Your task to perform on an android device: Open Youtube and go to "Your channel" Image 0: 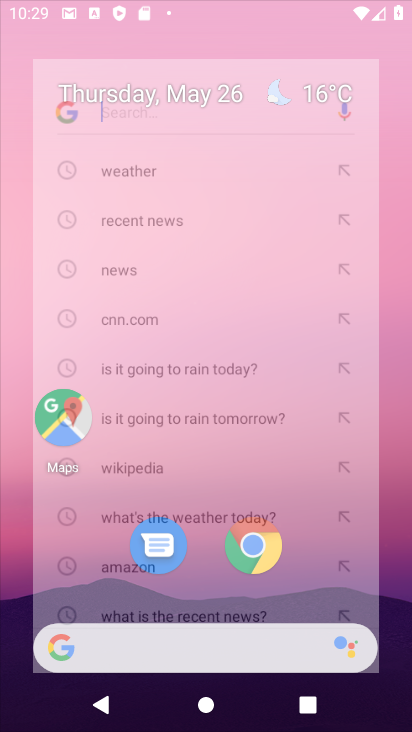
Step 0: press home button
Your task to perform on an android device: Open Youtube and go to "Your channel" Image 1: 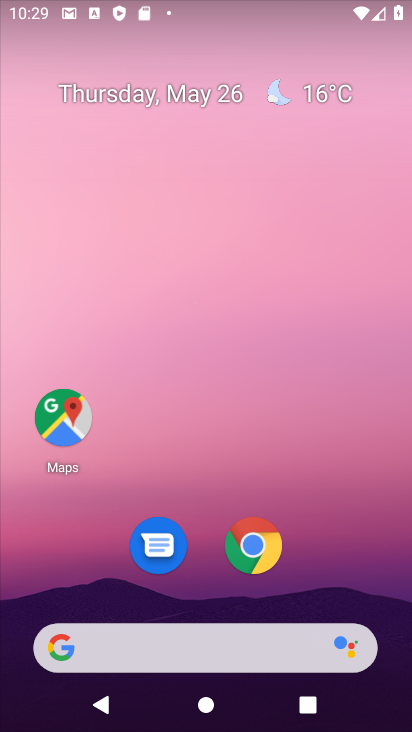
Step 1: drag from (283, 604) to (244, 4)
Your task to perform on an android device: Open Youtube and go to "Your channel" Image 2: 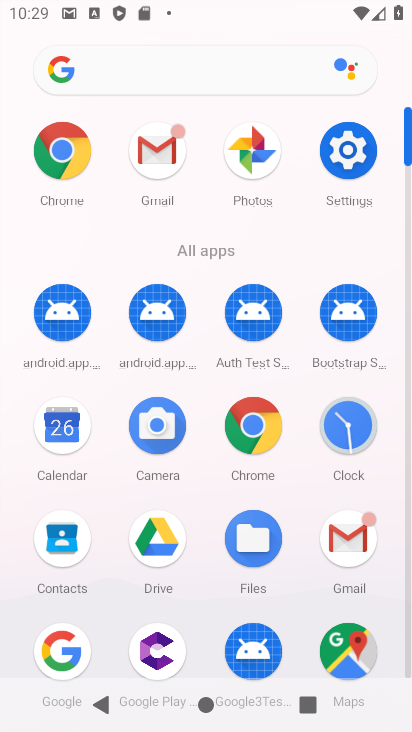
Step 2: drag from (373, 629) to (295, 145)
Your task to perform on an android device: Open Youtube and go to "Your channel" Image 3: 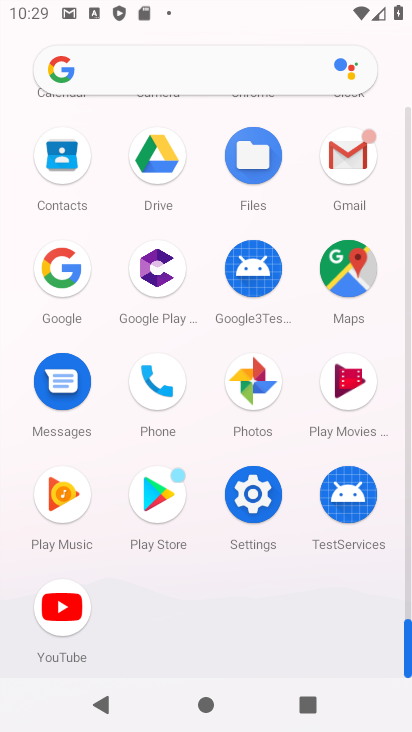
Step 3: click (66, 610)
Your task to perform on an android device: Open Youtube and go to "Your channel" Image 4: 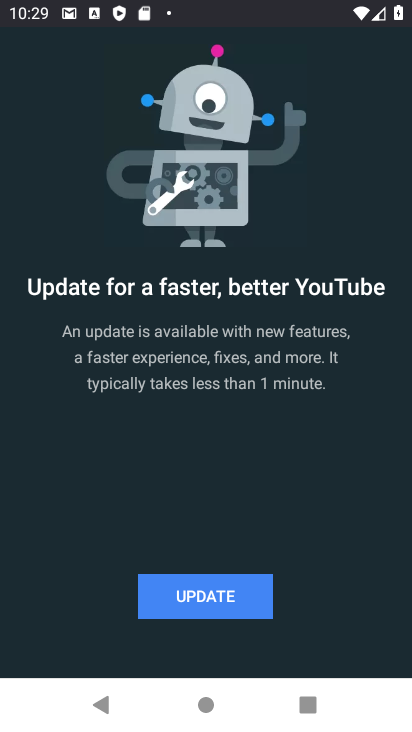
Step 4: click (154, 605)
Your task to perform on an android device: Open Youtube and go to "Your channel" Image 5: 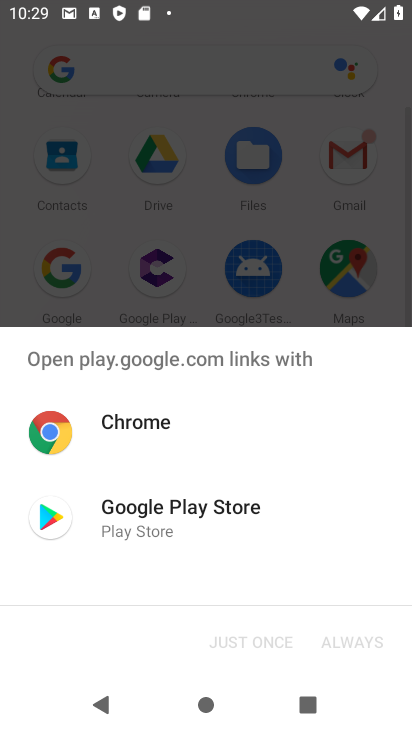
Step 5: click (229, 518)
Your task to perform on an android device: Open Youtube and go to "Your channel" Image 6: 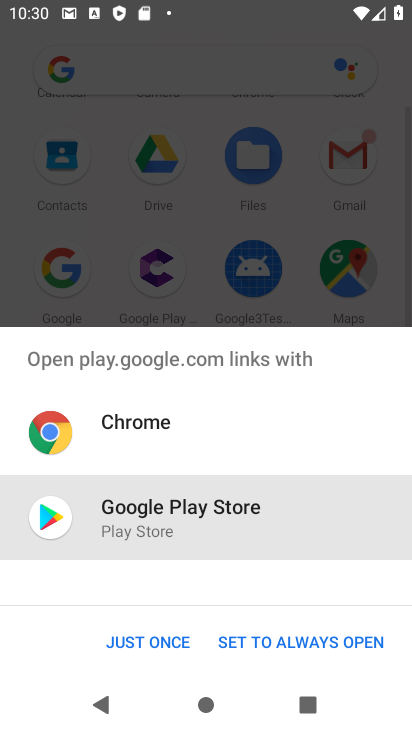
Step 6: click (145, 643)
Your task to perform on an android device: Open Youtube and go to "Your channel" Image 7: 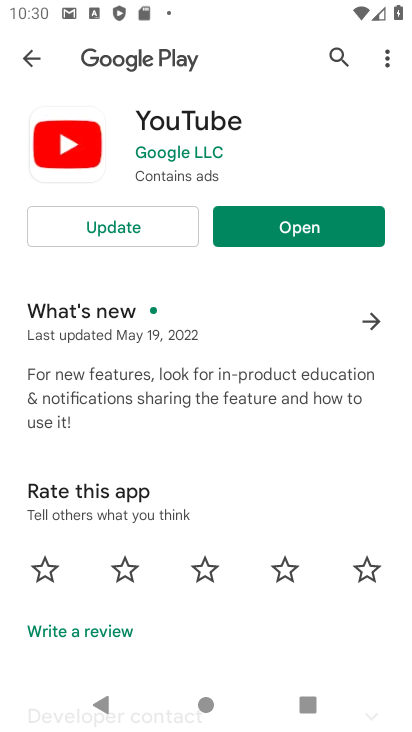
Step 7: click (46, 237)
Your task to perform on an android device: Open Youtube and go to "Your channel" Image 8: 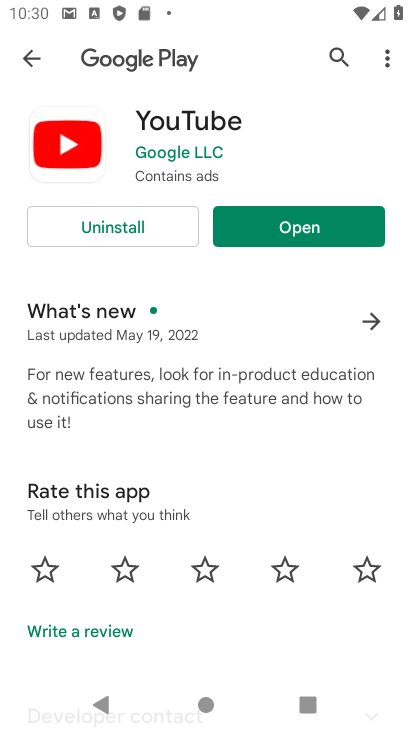
Step 8: click (245, 236)
Your task to perform on an android device: Open Youtube and go to "Your channel" Image 9: 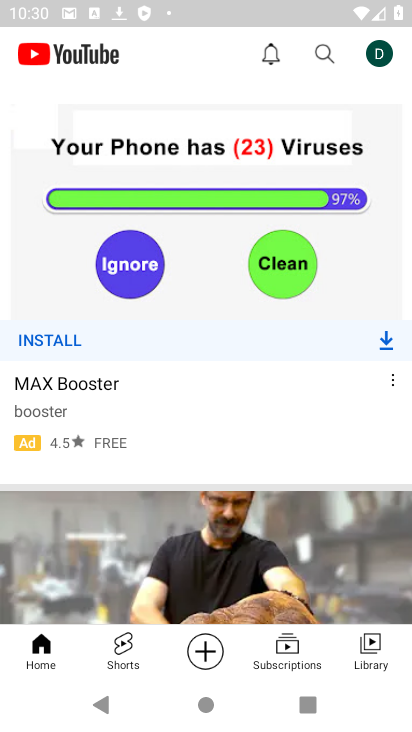
Step 9: click (376, 54)
Your task to perform on an android device: Open Youtube and go to "Your channel" Image 10: 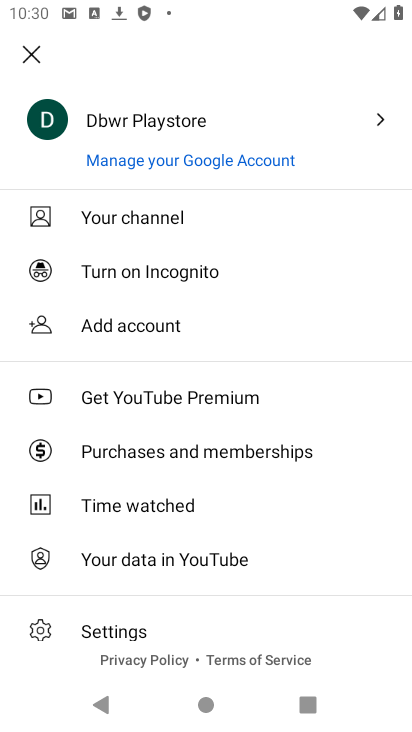
Step 10: click (131, 217)
Your task to perform on an android device: Open Youtube and go to "Your channel" Image 11: 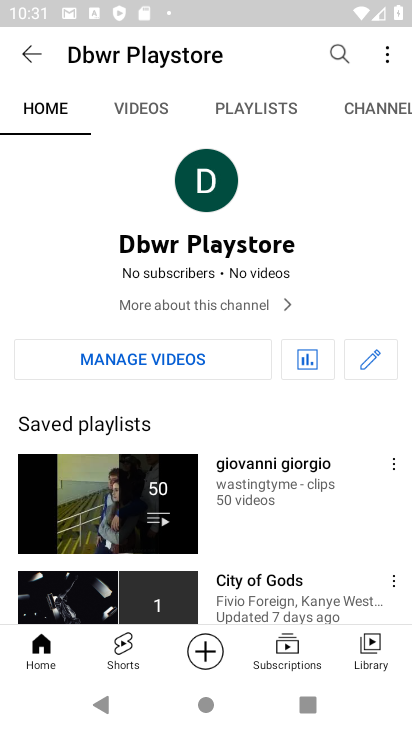
Step 11: task complete